Your task to perform on an android device: turn on improve location accuracy Image 0: 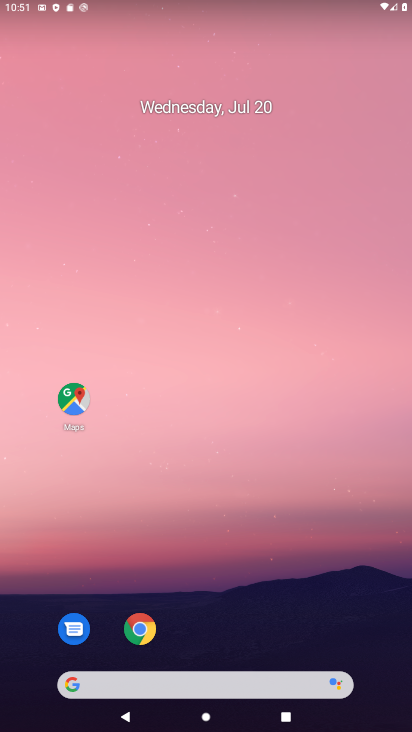
Step 0: drag from (212, 378) to (212, 89)
Your task to perform on an android device: turn on improve location accuracy Image 1: 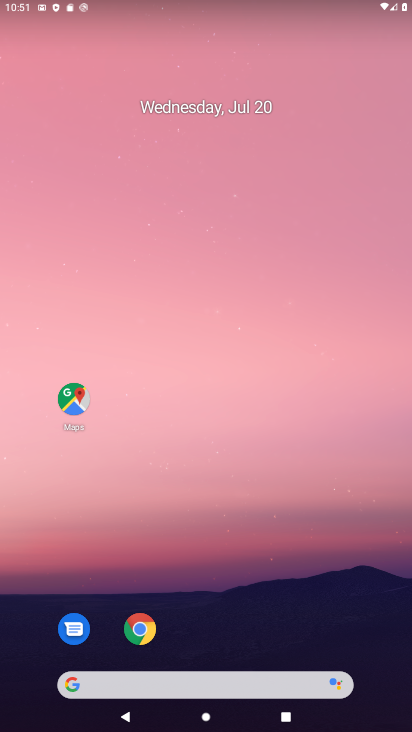
Step 1: drag from (248, 228) to (248, 60)
Your task to perform on an android device: turn on improve location accuracy Image 2: 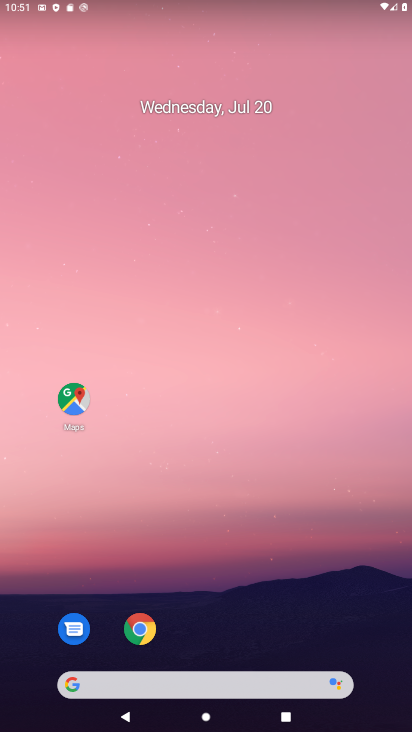
Step 2: drag from (226, 631) to (235, 126)
Your task to perform on an android device: turn on improve location accuracy Image 3: 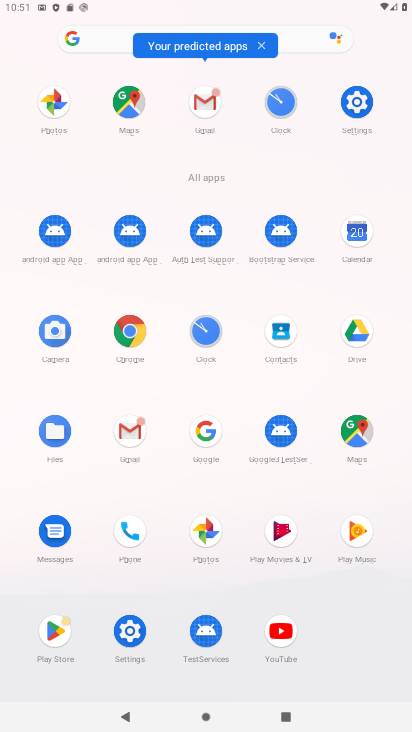
Step 3: click (355, 108)
Your task to perform on an android device: turn on improve location accuracy Image 4: 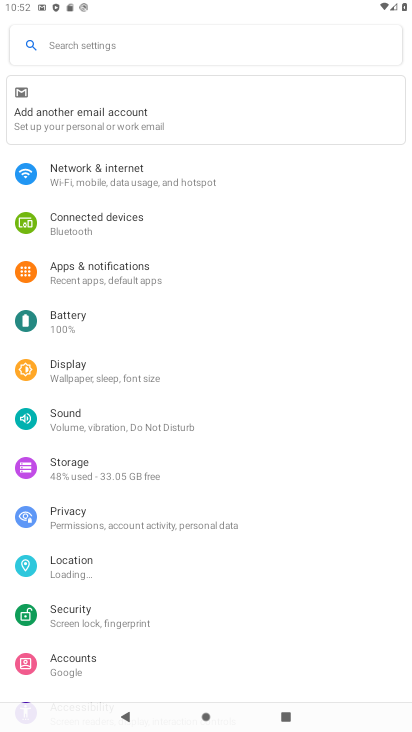
Step 4: click (128, 575)
Your task to perform on an android device: turn on improve location accuracy Image 5: 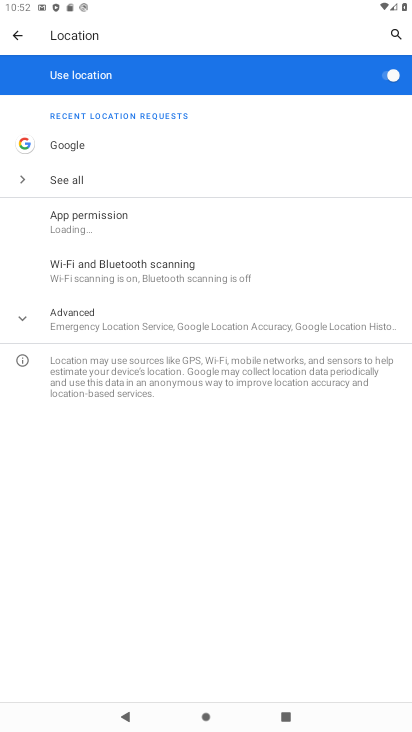
Step 5: click (142, 316)
Your task to perform on an android device: turn on improve location accuracy Image 6: 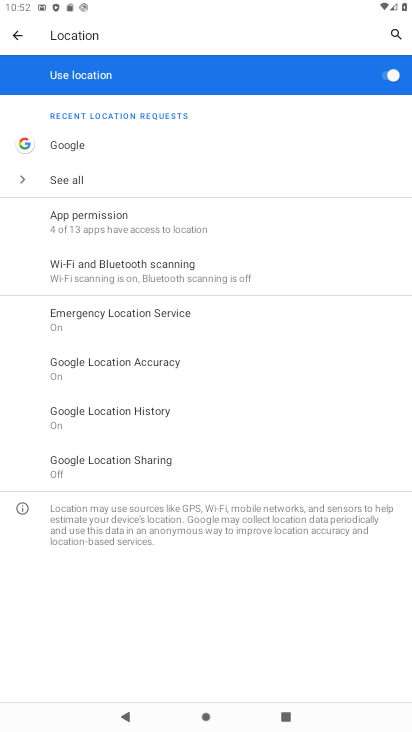
Step 6: click (176, 364)
Your task to perform on an android device: turn on improve location accuracy Image 7: 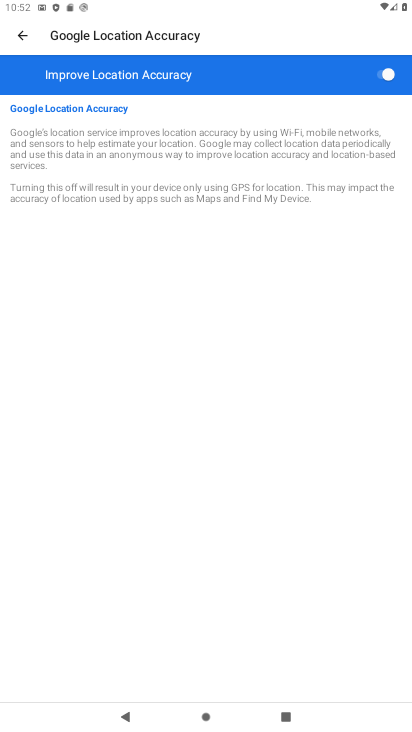
Step 7: task complete